Your task to perform on an android device: turn on priority inbox in the gmail app Image 0: 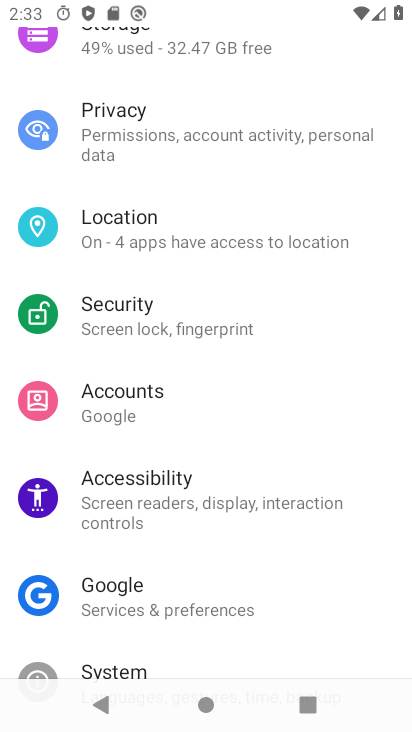
Step 0: press home button
Your task to perform on an android device: turn on priority inbox in the gmail app Image 1: 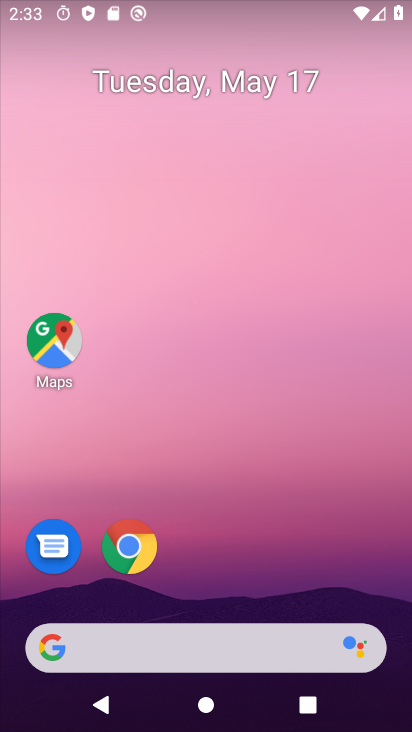
Step 1: drag from (194, 637) to (131, 148)
Your task to perform on an android device: turn on priority inbox in the gmail app Image 2: 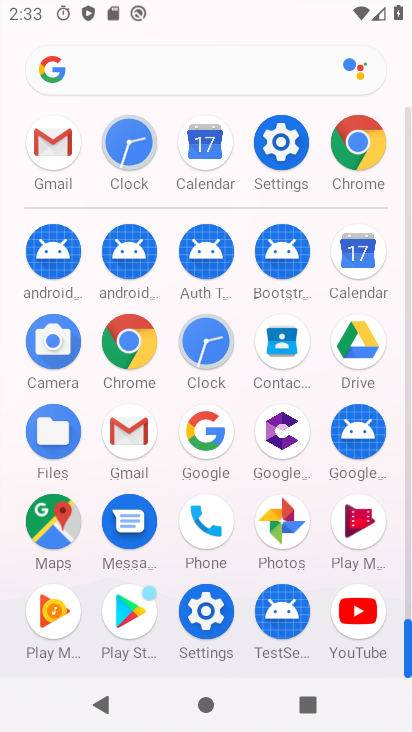
Step 2: click (148, 445)
Your task to perform on an android device: turn on priority inbox in the gmail app Image 3: 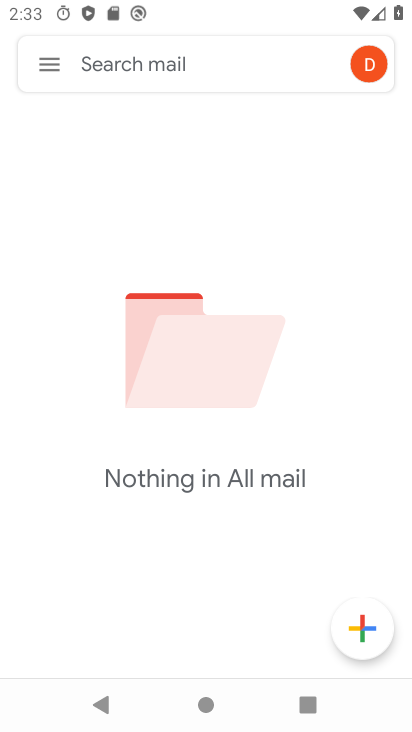
Step 3: click (51, 62)
Your task to perform on an android device: turn on priority inbox in the gmail app Image 4: 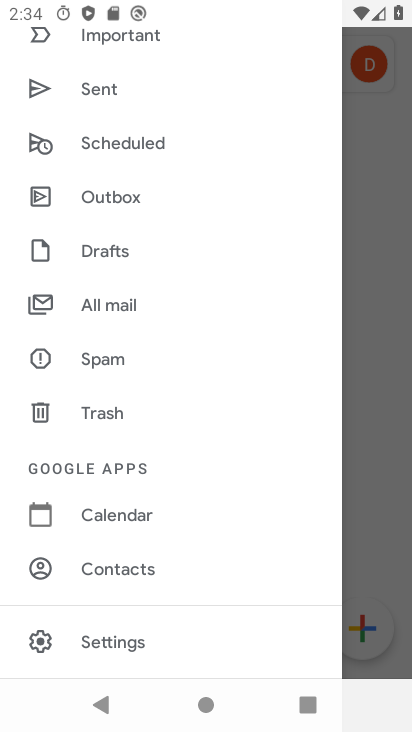
Step 4: click (156, 641)
Your task to perform on an android device: turn on priority inbox in the gmail app Image 5: 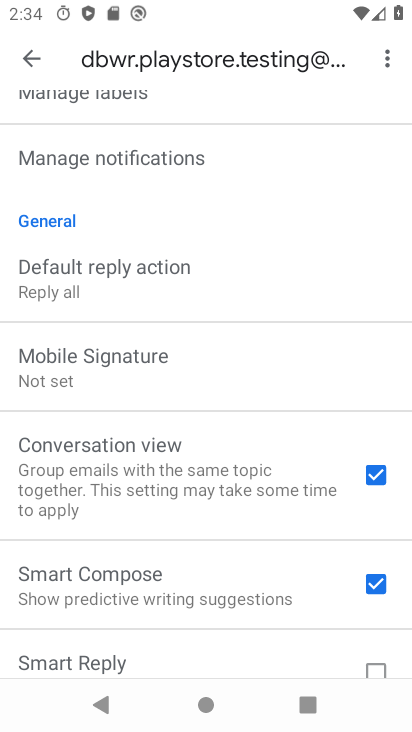
Step 5: task complete